Your task to perform on an android device: set the timer Image 0: 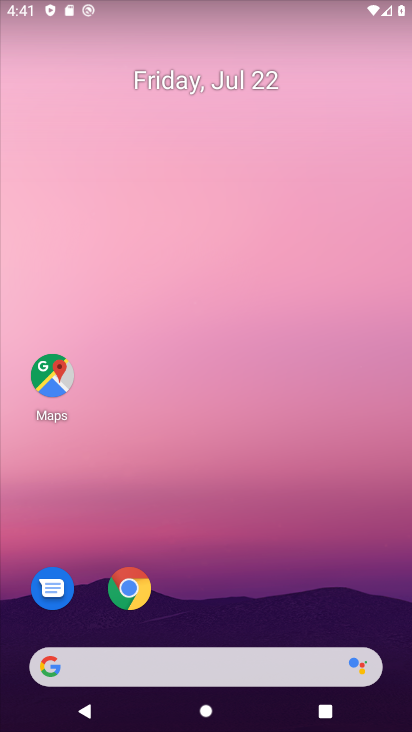
Step 0: drag from (269, 491) to (239, 138)
Your task to perform on an android device: set the timer Image 1: 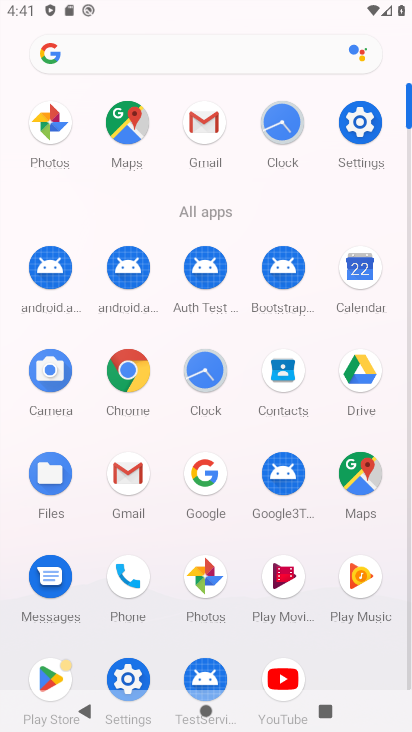
Step 1: click (206, 376)
Your task to perform on an android device: set the timer Image 2: 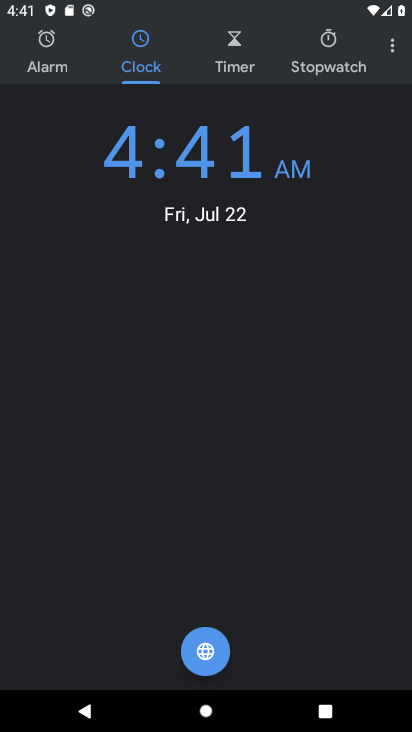
Step 2: click (234, 47)
Your task to perform on an android device: set the timer Image 3: 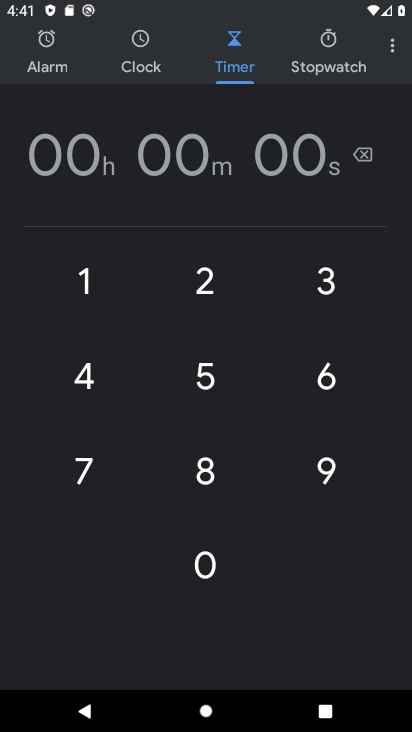
Step 3: click (198, 388)
Your task to perform on an android device: set the timer Image 4: 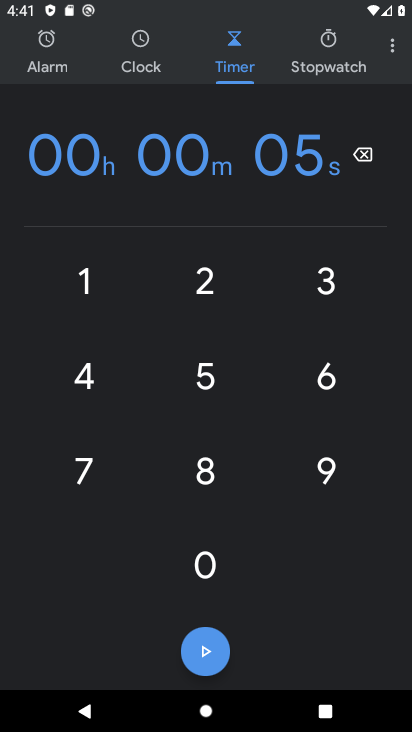
Step 4: click (202, 451)
Your task to perform on an android device: set the timer Image 5: 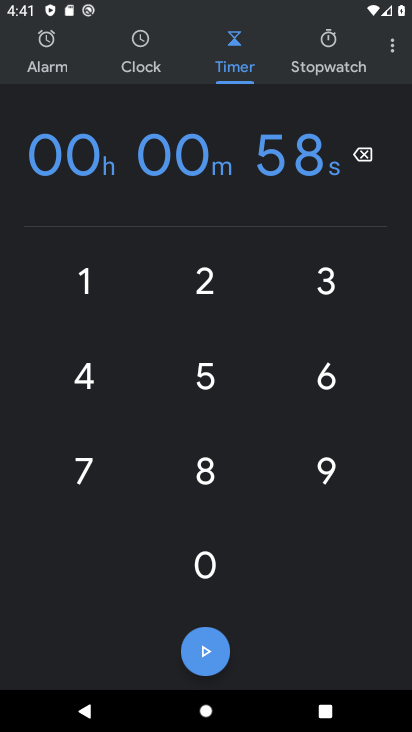
Step 5: click (201, 304)
Your task to perform on an android device: set the timer Image 6: 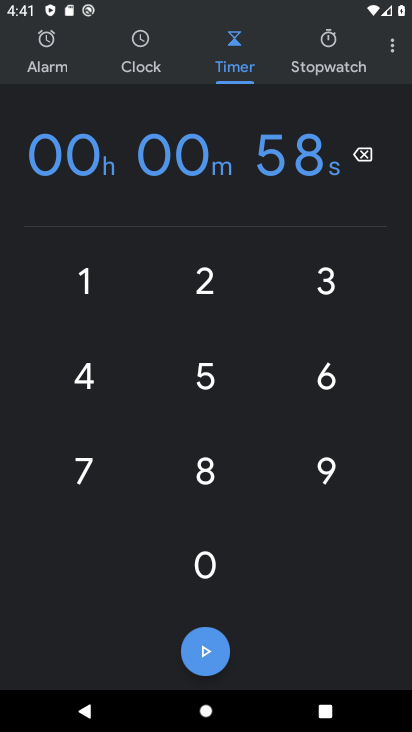
Step 6: click (201, 304)
Your task to perform on an android device: set the timer Image 7: 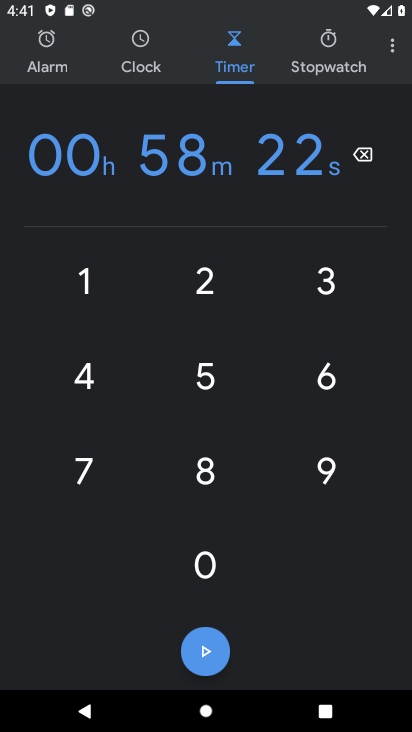
Step 7: click (332, 364)
Your task to perform on an android device: set the timer Image 8: 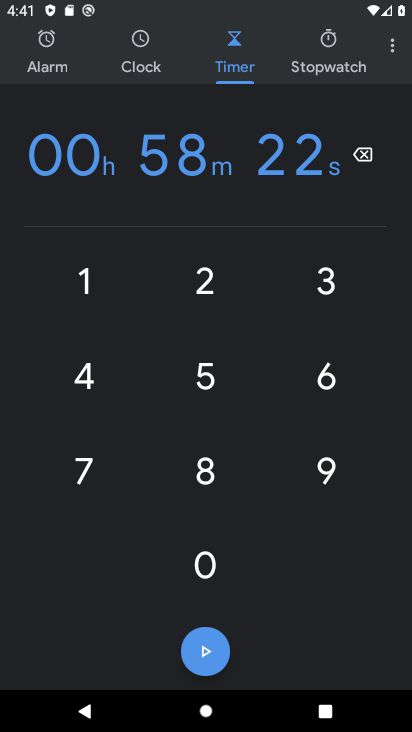
Step 8: click (332, 364)
Your task to perform on an android device: set the timer Image 9: 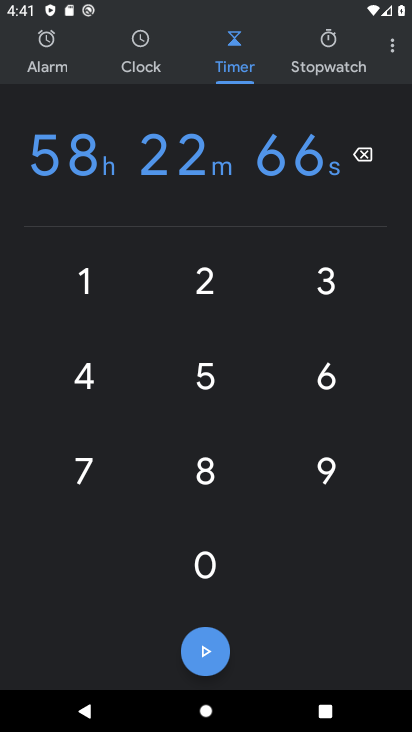
Step 9: task complete